Your task to perform on an android device: Search for Italian restaurants on Maps Image 0: 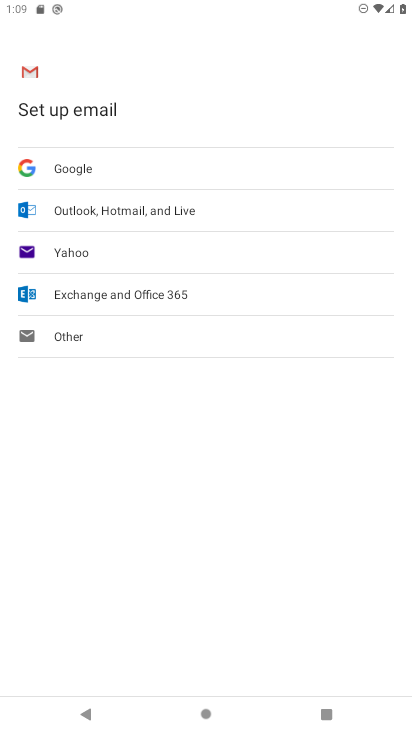
Step 0: press home button
Your task to perform on an android device: Search for Italian restaurants on Maps Image 1: 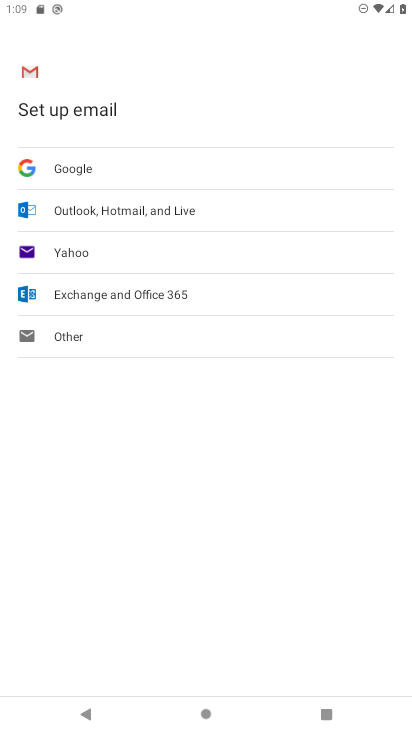
Step 1: press home button
Your task to perform on an android device: Search for Italian restaurants on Maps Image 2: 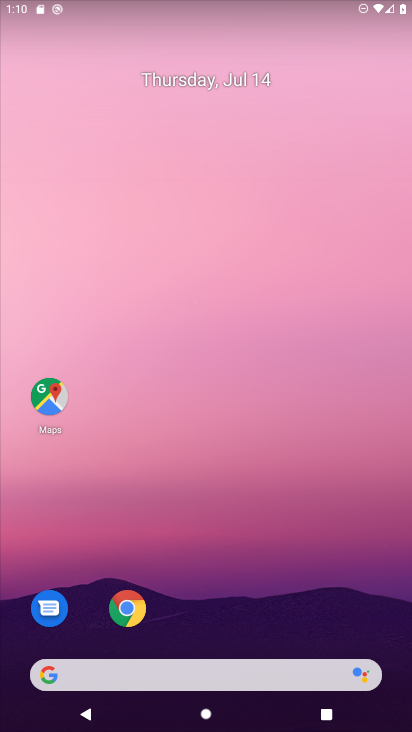
Step 2: drag from (225, 712) to (224, 95)
Your task to perform on an android device: Search for Italian restaurants on Maps Image 3: 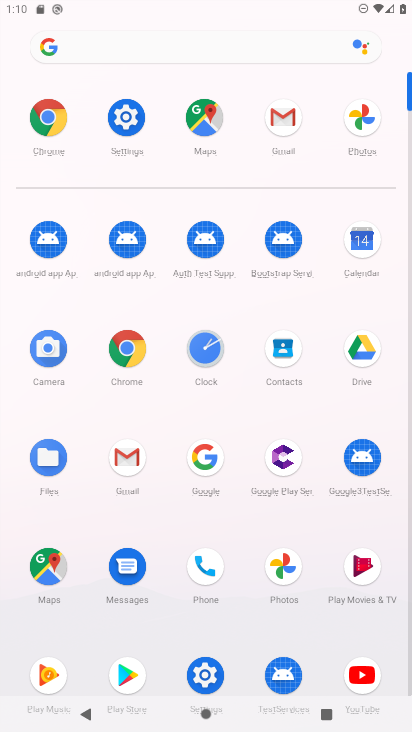
Step 3: click (52, 559)
Your task to perform on an android device: Search for Italian restaurants on Maps Image 4: 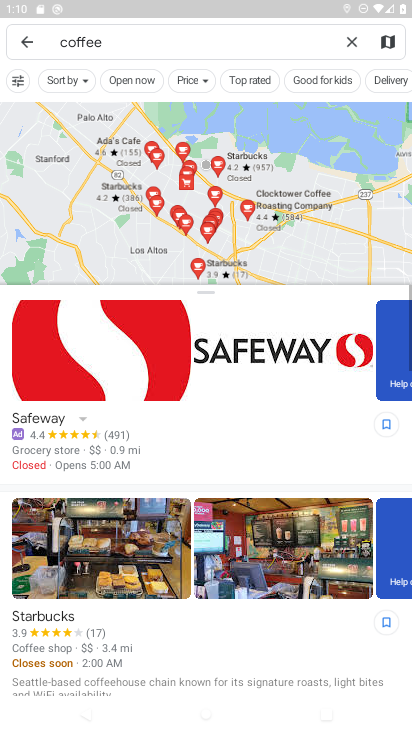
Step 4: click (353, 36)
Your task to perform on an android device: Search for Italian restaurants on Maps Image 5: 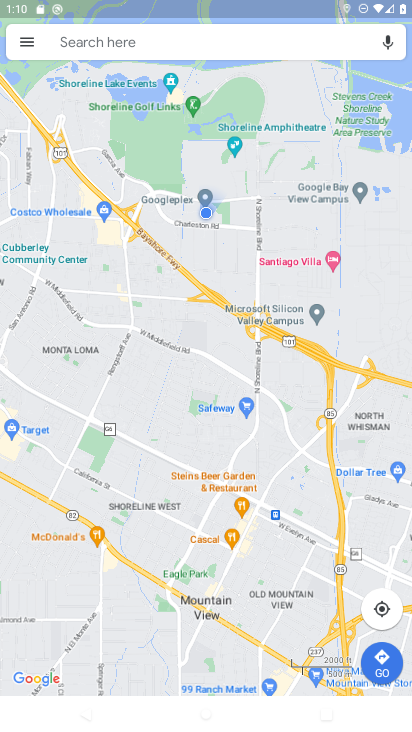
Step 5: click (159, 41)
Your task to perform on an android device: Search for Italian restaurants on Maps Image 6: 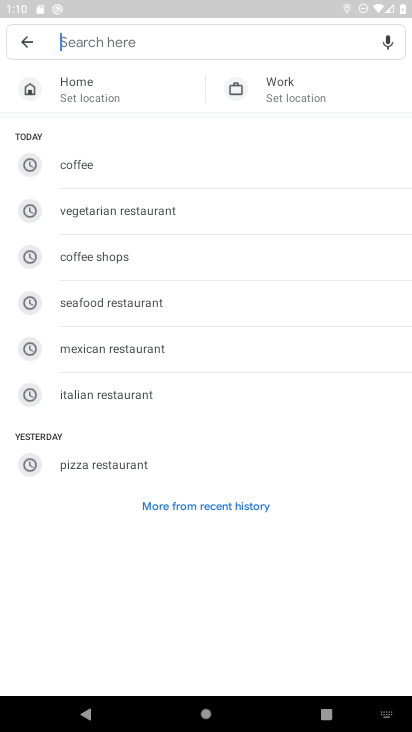
Step 6: type "italian restaurants"
Your task to perform on an android device: Search for Italian restaurants on Maps Image 7: 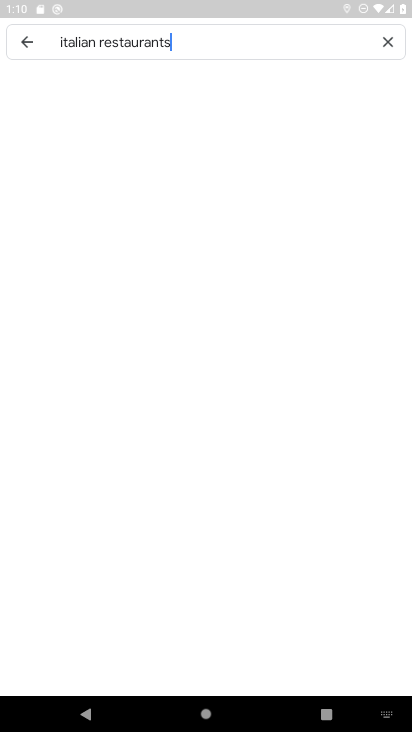
Step 7: type ""
Your task to perform on an android device: Search for Italian restaurants on Maps Image 8: 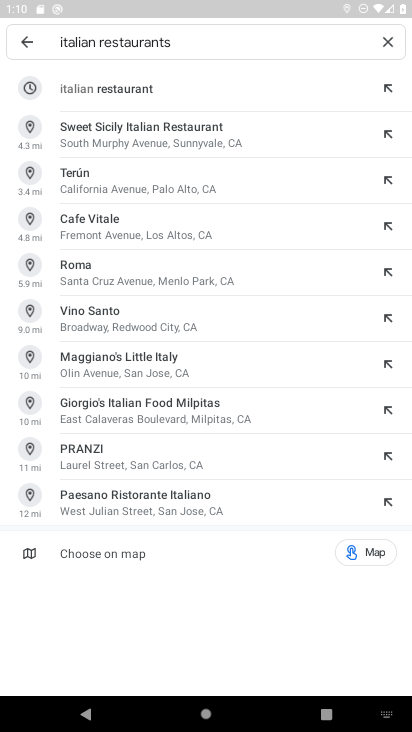
Step 8: click (109, 85)
Your task to perform on an android device: Search for Italian restaurants on Maps Image 9: 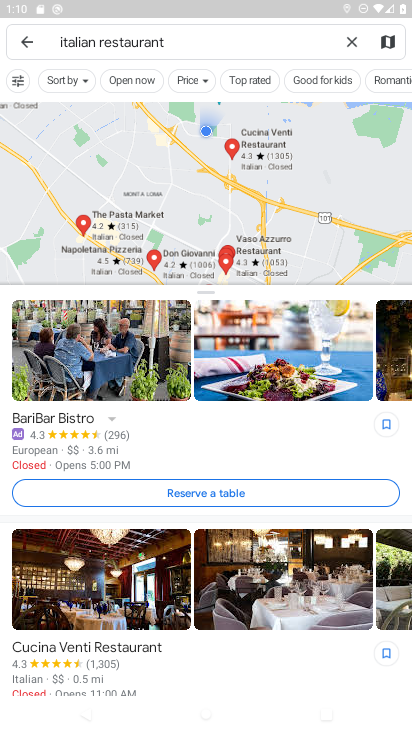
Step 9: task complete